Your task to perform on an android device: Open Google Image 0: 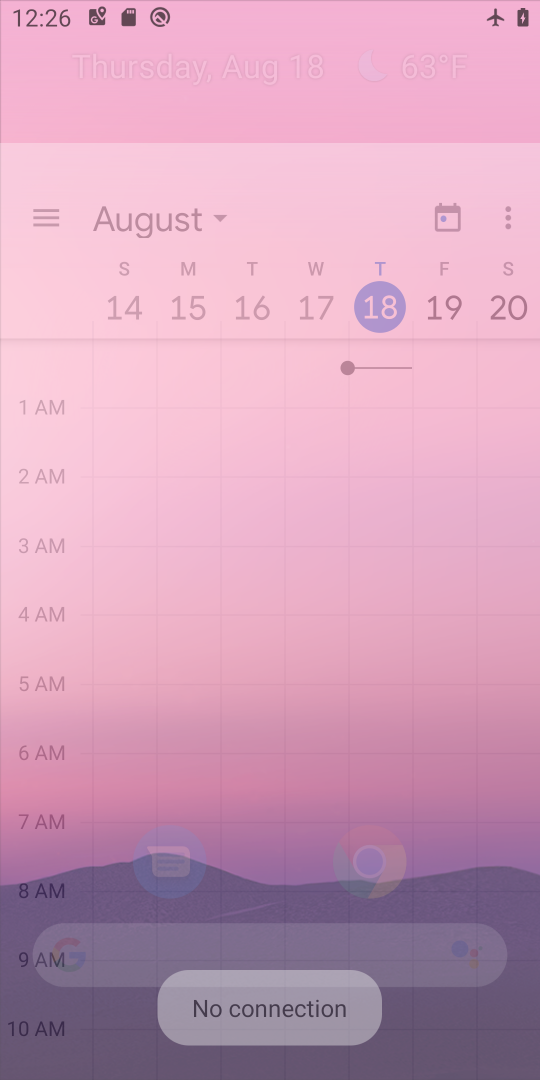
Step 0: press home button
Your task to perform on an android device: Open Google Image 1: 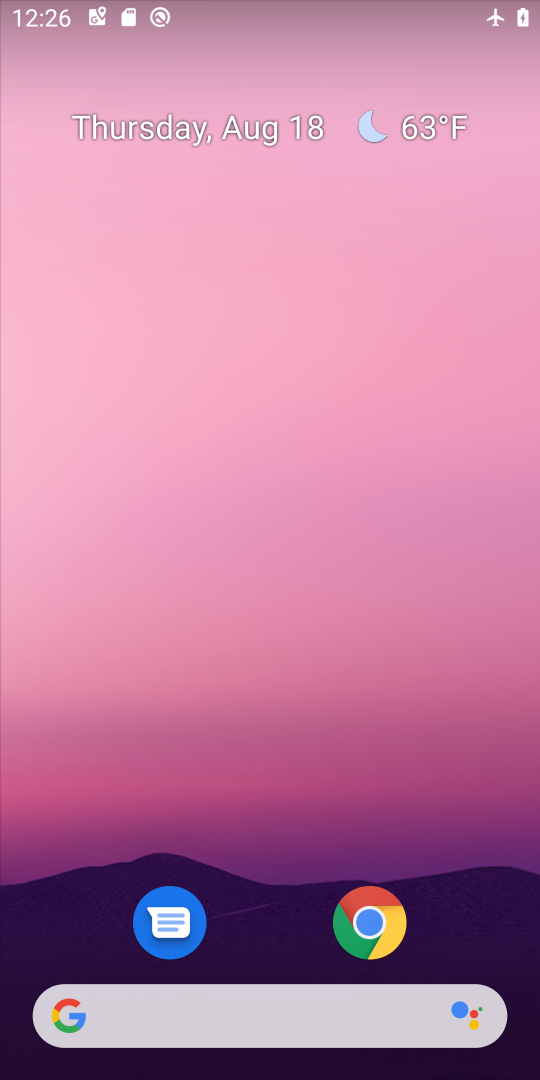
Step 1: click (66, 1017)
Your task to perform on an android device: Open Google Image 2: 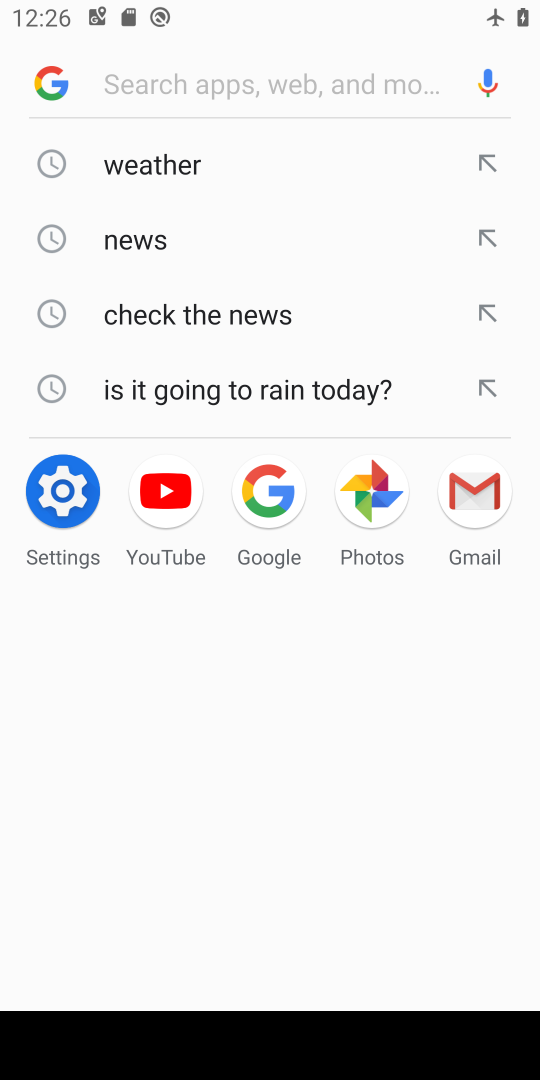
Step 2: click (49, 83)
Your task to perform on an android device: Open Google Image 3: 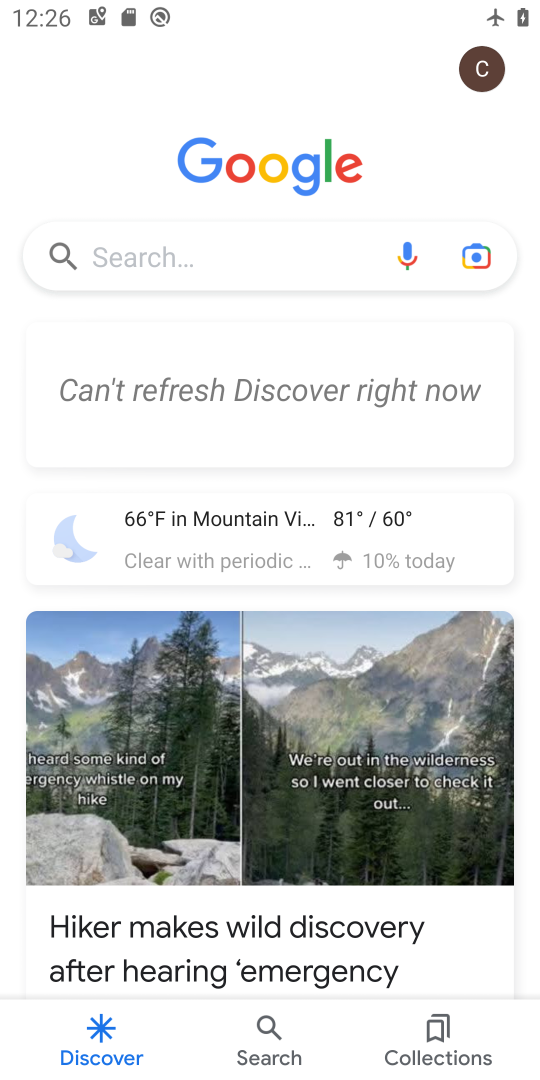
Step 3: task complete